Your task to perform on an android device: change the upload size in google photos Image 0: 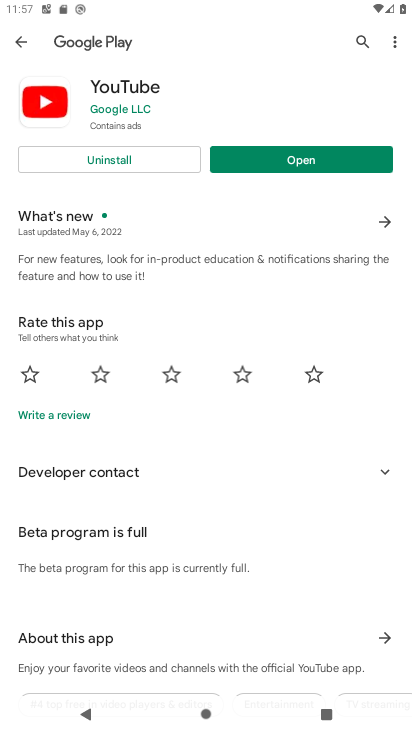
Step 0: drag from (363, 621) to (259, 666)
Your task to perform on an android device: change the upload size in google photos Image 1: 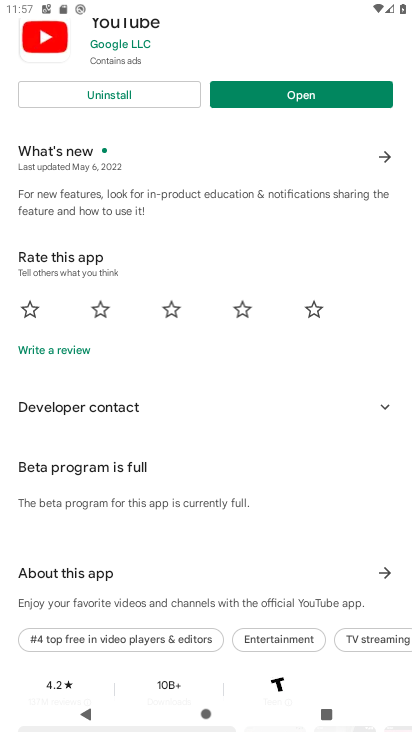
Step 1: press home button
Your task to perform on an android device: change the upload size in google photos Image 2: 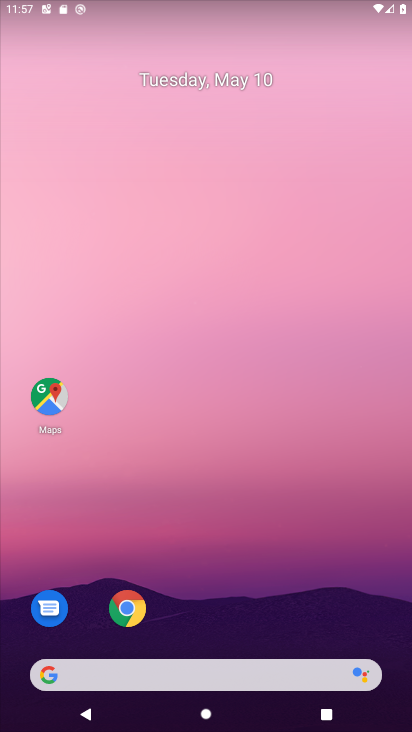
Step 2: drag from (211, 657) to (236, 177)
Your task to perform on an android device: change the upload size in google photos Image 3: 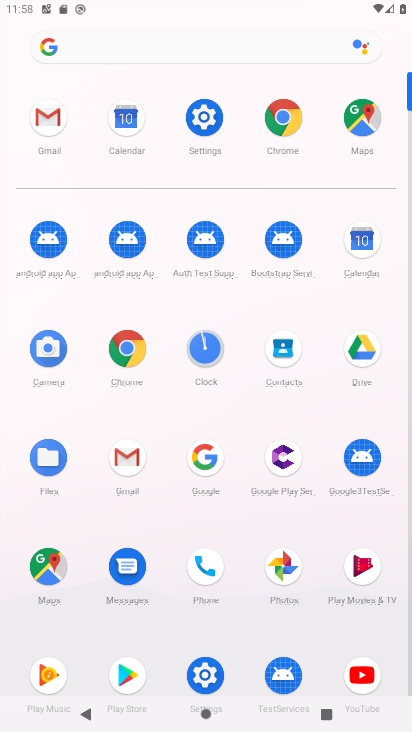
Step 3: click (284, 573)
Your task to perform on an android device: change the upload size in google photos Image 4: 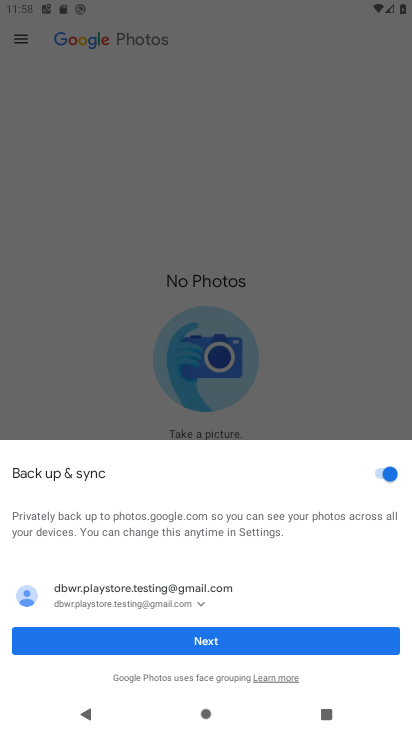
Step 4: click (232, 654)
Your task to perform on an android device: change the upload size in google photos Image 5: 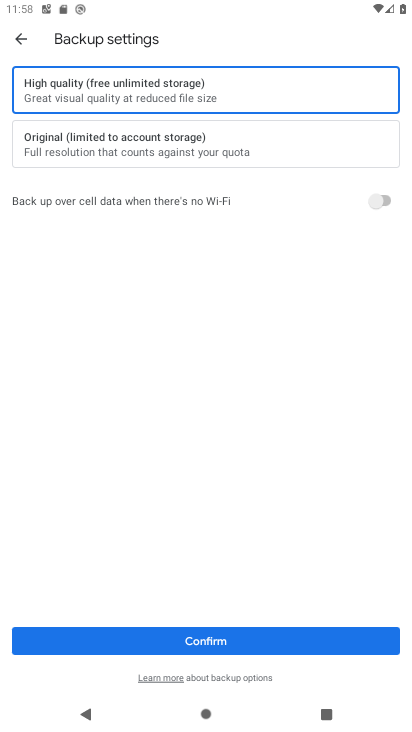
Step 5: click (232, 654)
Your task to perform on an android device: change the upload size in google photos Image 6: 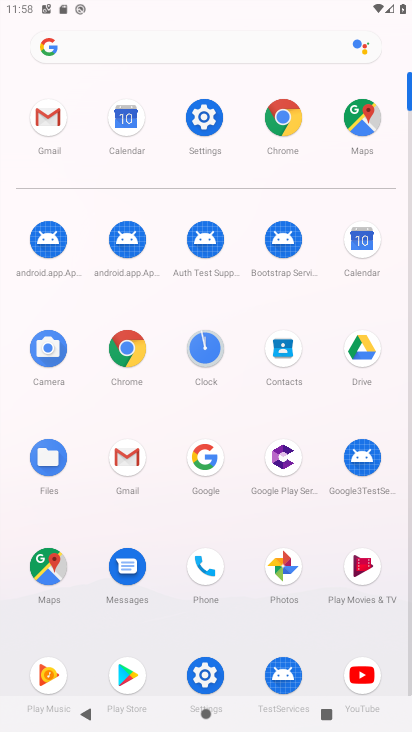
Step 6: task complete